Your task to perform on an android device: Open Reddit.com Image 0: 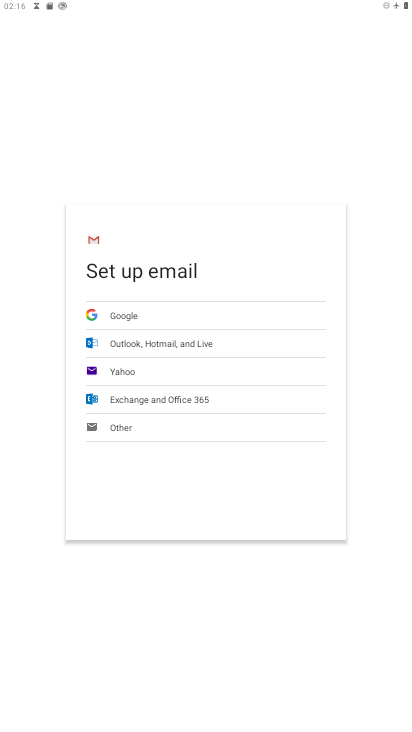
Step 0: press home button
Your task to perform on an android device: Open Reddit.com Image 1: 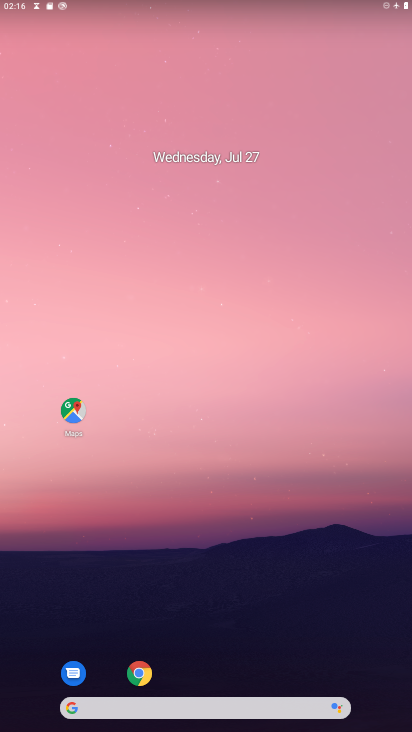
Step 1: drag from (229, 689) to (254, 282)
Your task to perform on an android device: Open Reddit.com Image 2: 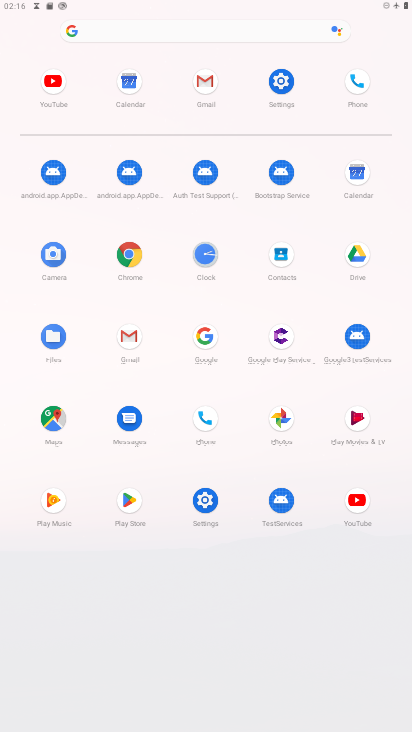
Step 2: click (134, 248)
Your task to perform on an android device: Open Reddit.com Image 3: 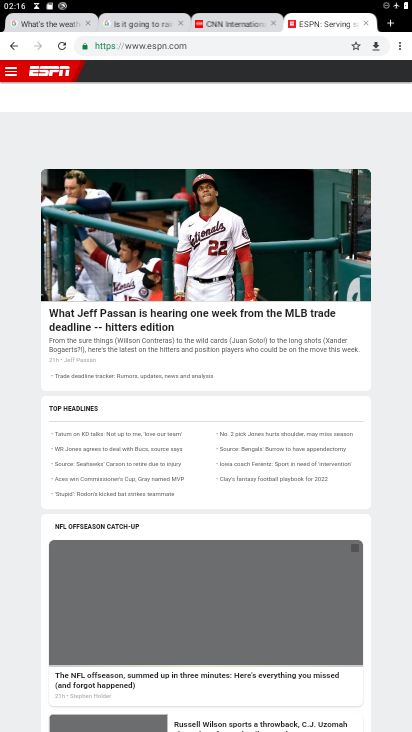
Step 3: click (398, 27)
Your task to perform on an android device: Open Reddit.com Image 4: 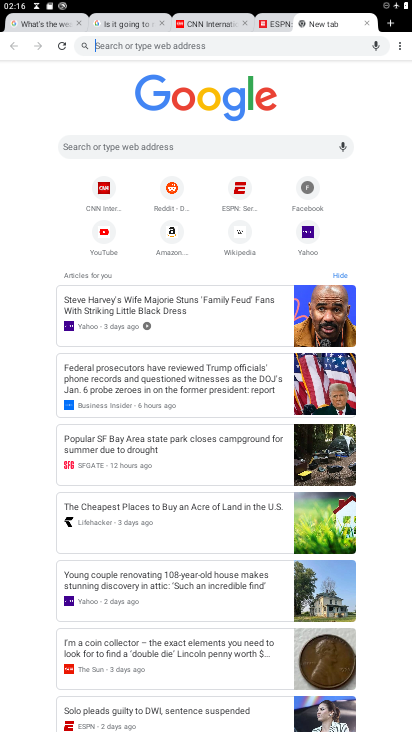
Step 4: click (166, 203)
Your task to perform on an android device: Open Reddit.com Image 5: 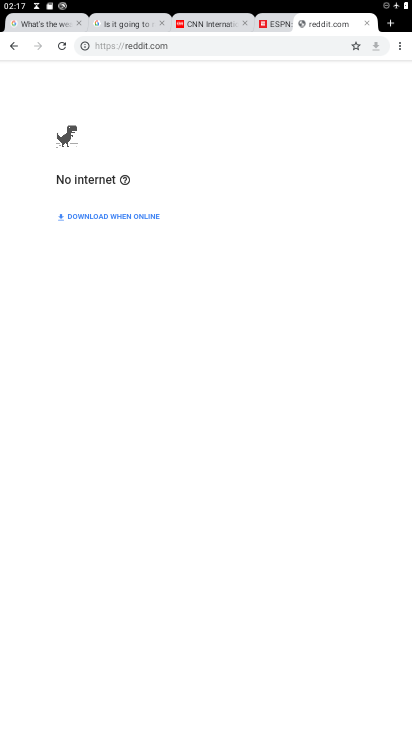
Step 5: task complete